Your task to perform on an android device: Open calendar and show me the second week of next month Image 0: 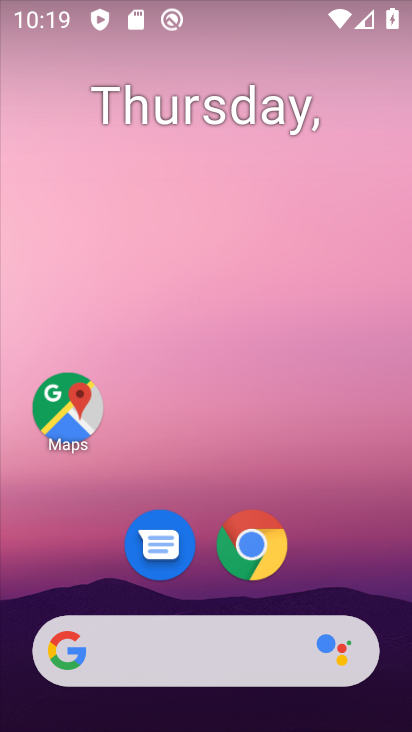
Step 0: drag from (344, 570) to (229, 95)
Your task to perform on an android device: Open calendar and show me the second week of next month Image 1: 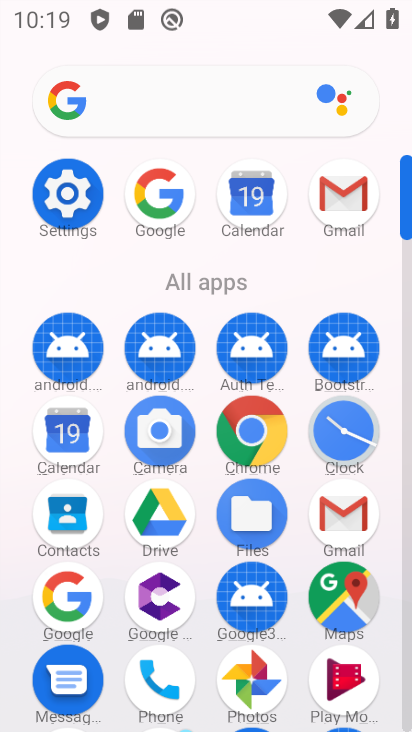
Step 1: click (66, 432)
Your task to perform on an android device: Open calendar and show me the second week of next month Image 2: 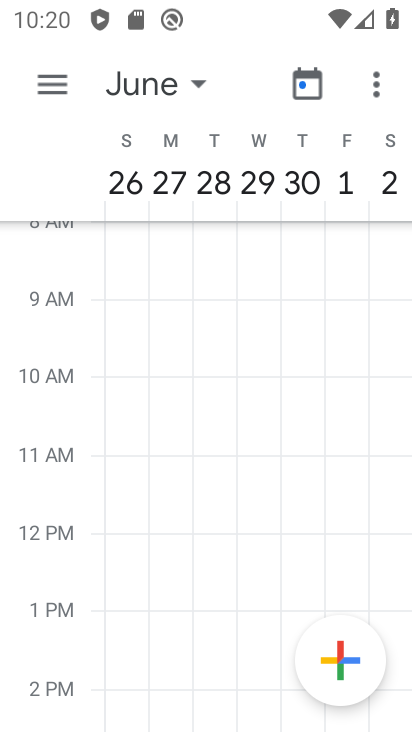
Step 2: click (307, 85)
Your task to perform on an android device: Open calendar and show me the second week of next month Image 3: 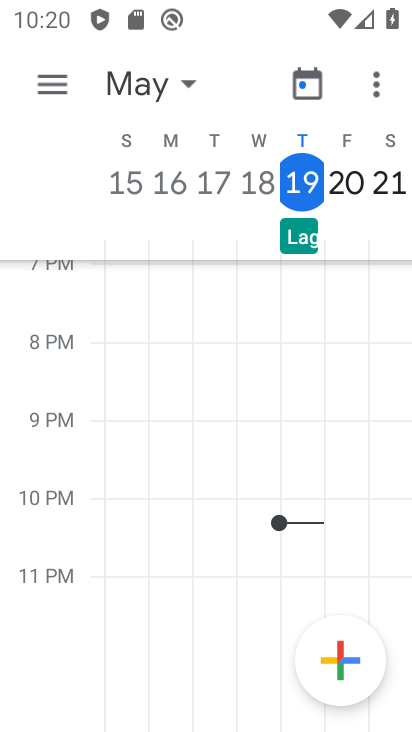
Step 3: click (190, 83)
Your task to perform on an android device: Open calendar and show me the second week of next month Image 4: 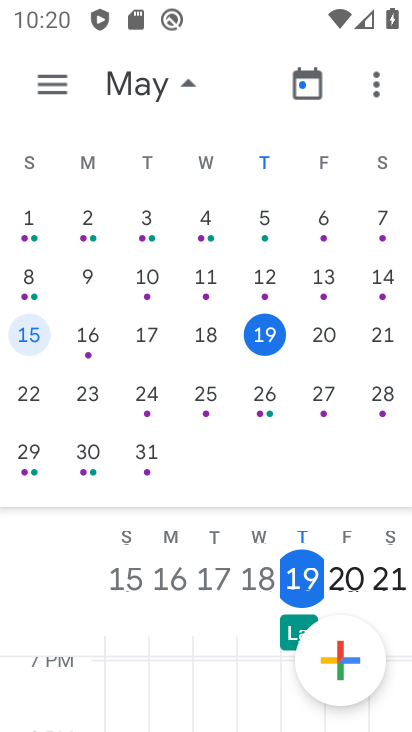
Step 4: drag from (377, 355) to (26, 366)
Your task to perform on an android device: Open calendar and show me the second week of next month Image 5: 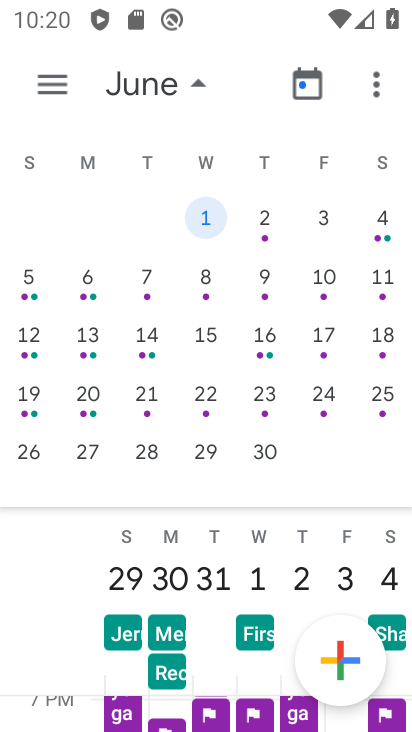
Step 5: click (90, 342)
Your task to perform on an android device: Open calendar and show me the second week of next month Image 6: 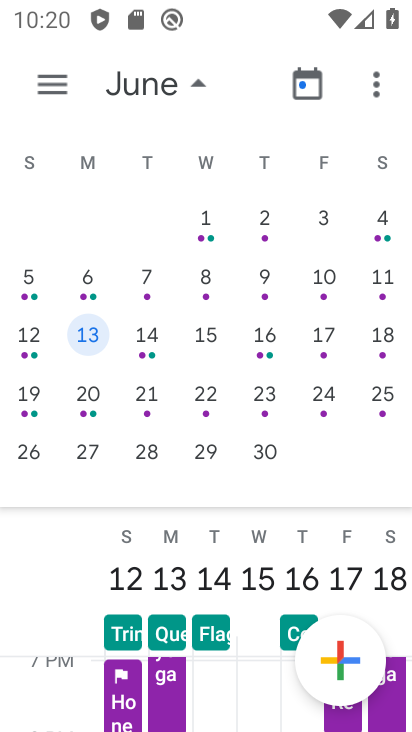
Step 6: click (58, 92)
Your task to perform on an android device: Open calendar and show me the second week of next month Image 7: 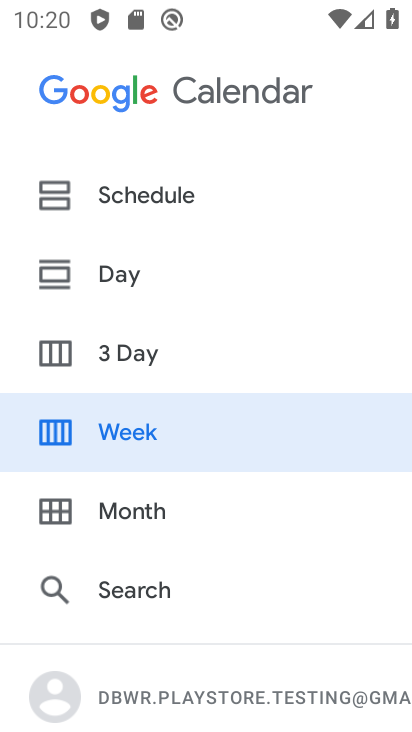
Step 7: click (119, 434)
Your task to perform on an android device: Open calendar and show me the second week of next month Image 8: 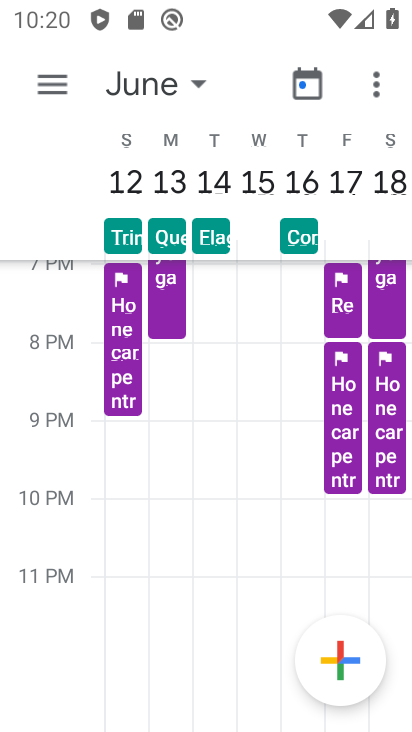
Step 8: task complete